Your task to perform on an android device: check android version Image 0: 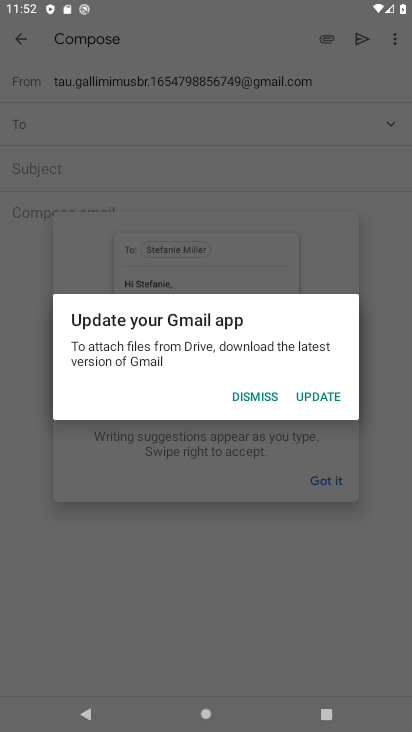
Step 0: press home button
Your task to perform on an android device: check android version Image 1: 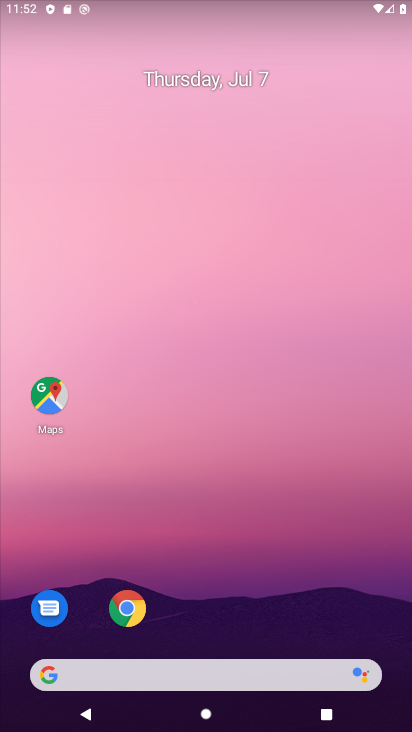
Step 1: press home button
Your task to perform on an android device: check android version Image 2: 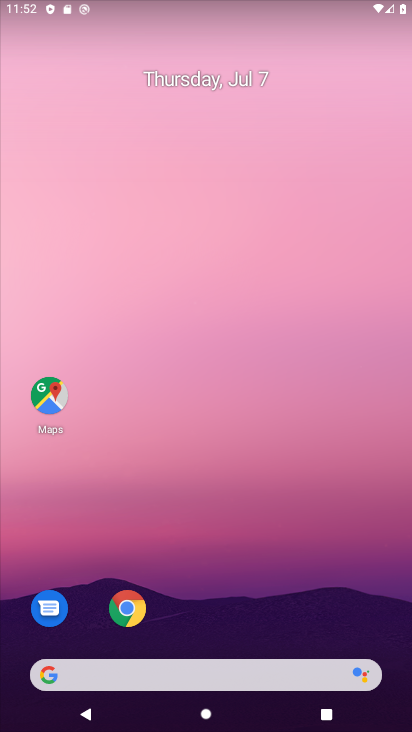
Step 2: drag from (286, 625) to (254, 230)
Your task to perform on an android device: check android version Image 3: 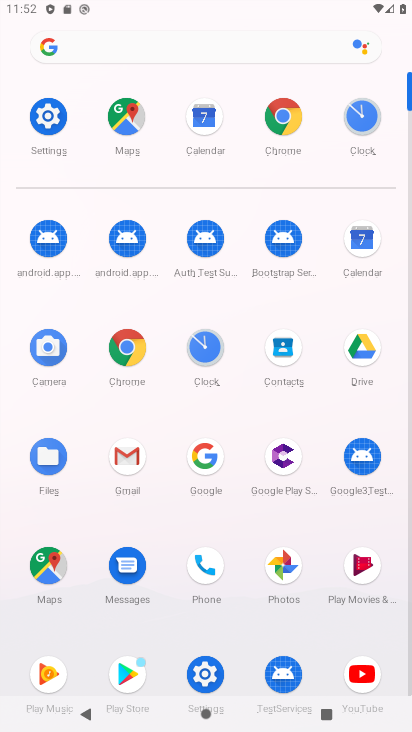
Step 3: click (36, 131)
Your task to perform on an android device: check android version Image 4: 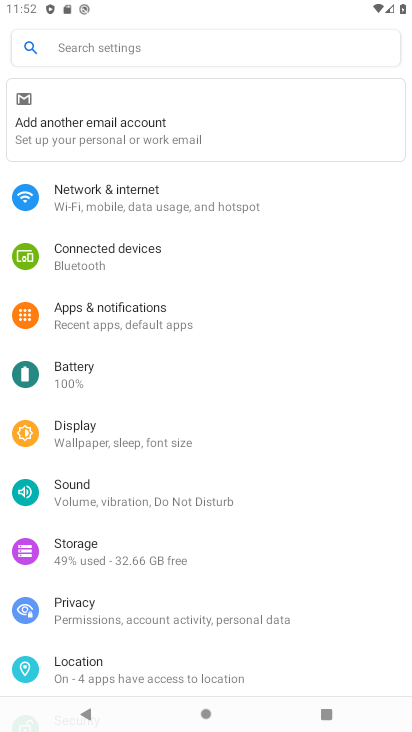
Step 4: drag from (228, 621) to (196, 79)
Your task to perform on an android device: check android version Image 5: 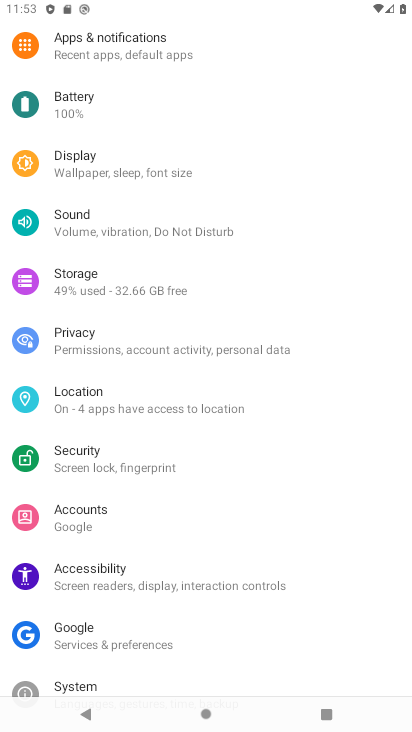
Step 5: drag from (237, 539) to (213, 387)
Your task to perform on an android device: check android version Image 6: 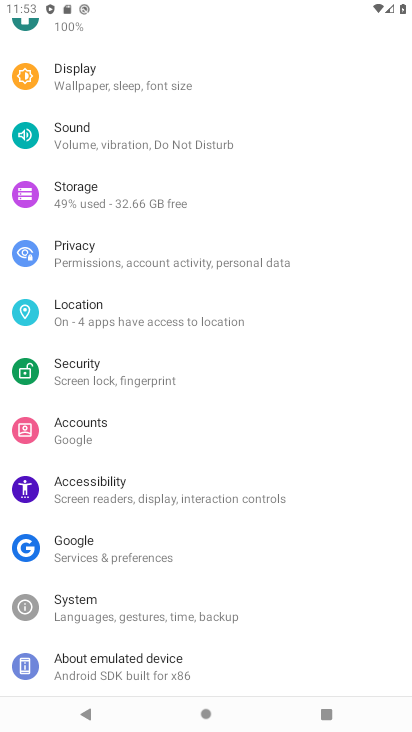
Step 6: click (201, 670)
Your task to perform on an android device: check android version Image 7: 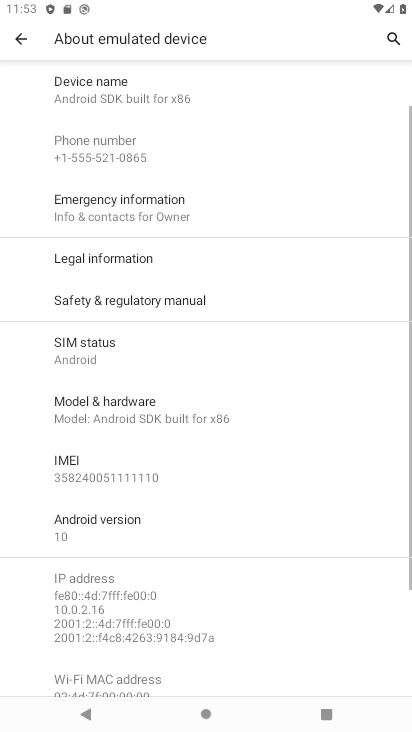
Step 7: drag from (201, 670) to (117, 239)
Your task to perform on an android device: check android version Image 8: 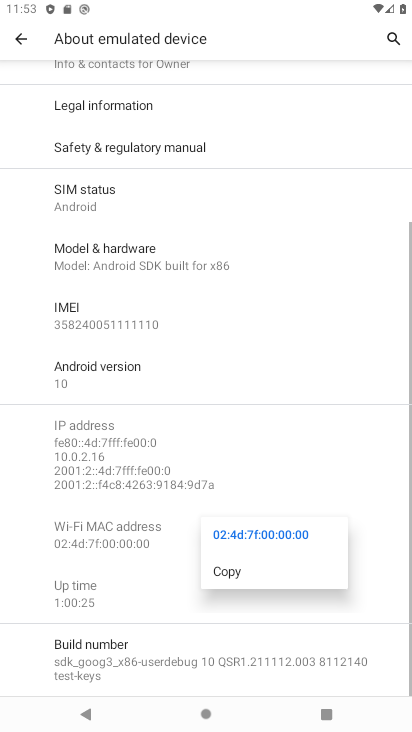
Step 8: click (175, 653)
Your task to perform on an android device: check android version Image 9: 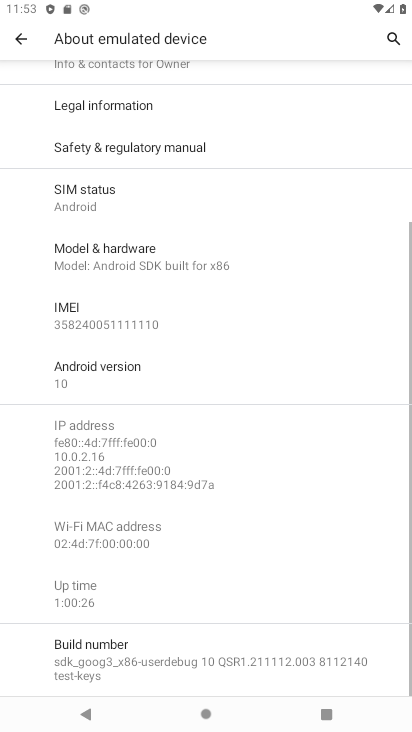
Step 9: task complete